Your task to perform on an android device: What's on my calendar today? Image 0: 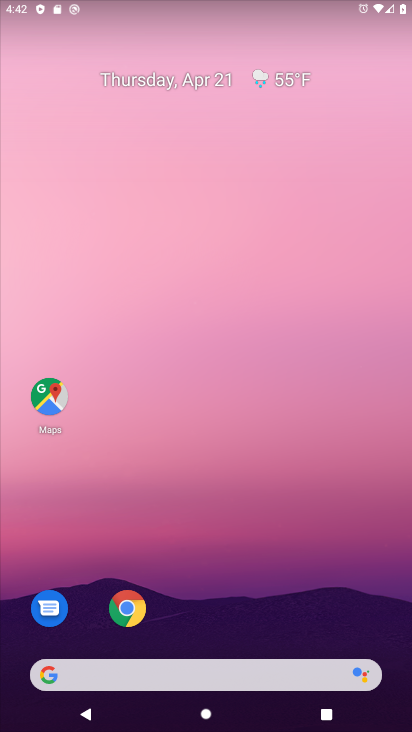
Step 0: drag from (269, 508) to (275, 11)
Your task to perform on an android device: What's on my calendar today? Image 1: 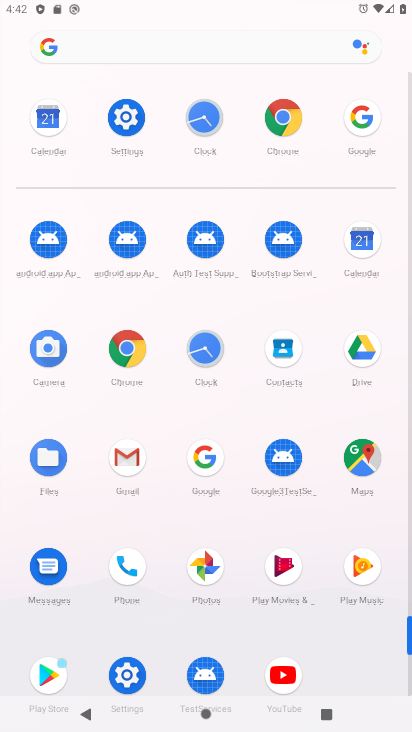
Step 1: click (48, 128)
Your task to perform on an android device: What's on my calendar today? Image 2: 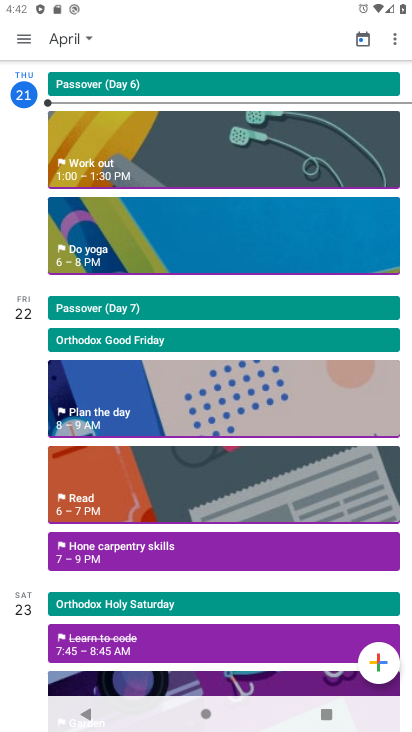
Step 2: task complete